Your task to perform on an android device: When is my next meeting? Image 0: 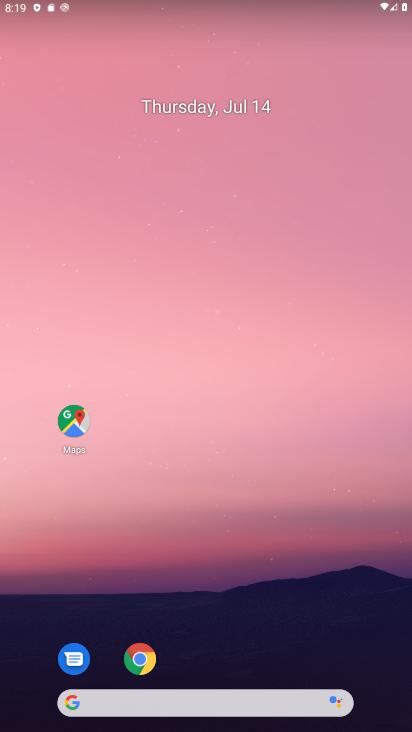
Step 0: drag from (216, 668) to (215, 137)
Your task to perform on an android device: When is my next meeting? Image 1: 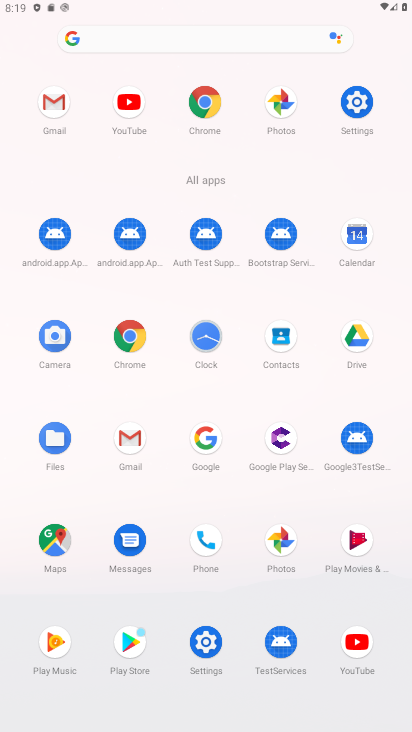
Step 1: click (357, 253)
Your task to perform on an android device: When is my next meeting? Image 2: 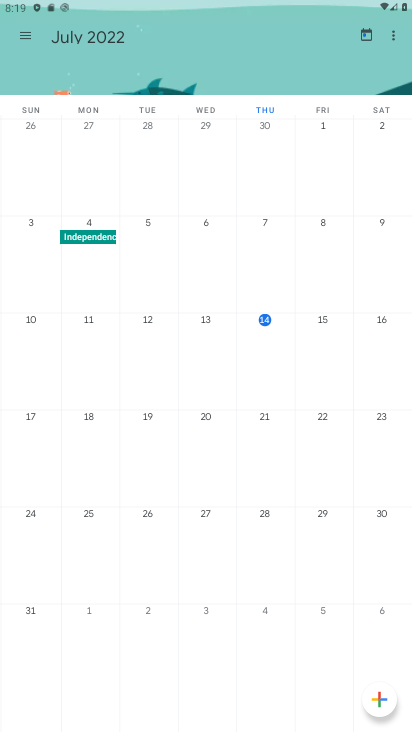
Step 2: drag from (321, 482) to (4, 436)
Your task to perform on an android device: When is my next meeting? Image 3: 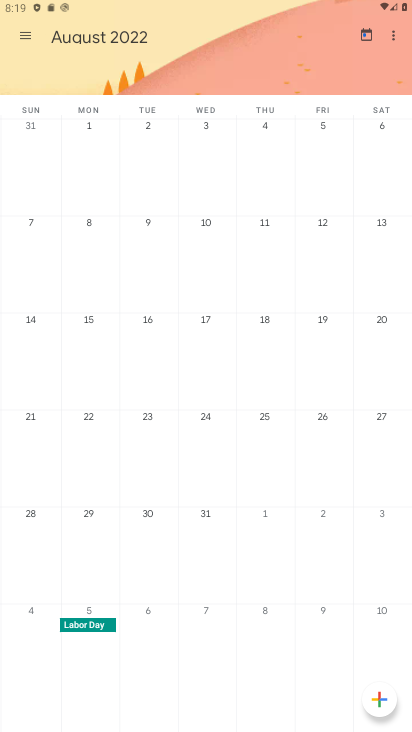
Step 3: drag from (30, 417) to (411, 306)
Your task to perform on an android device: When is my next meeting? Image 4: 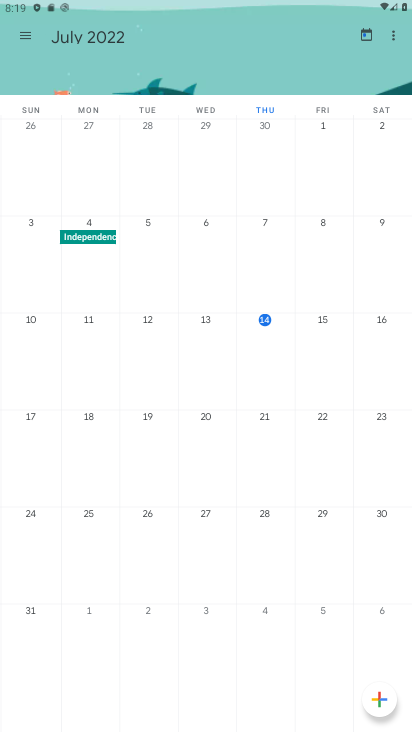
Step 4: click (16, 32)
Your task to perform on an android device: When is my next meeting? Image 5: 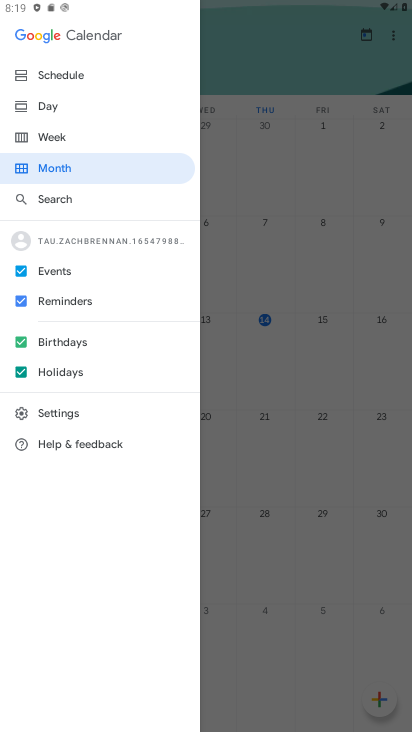
Step 5: click (49, 254)
Your task to perform on an android device: When is my next meeting? Image 6: 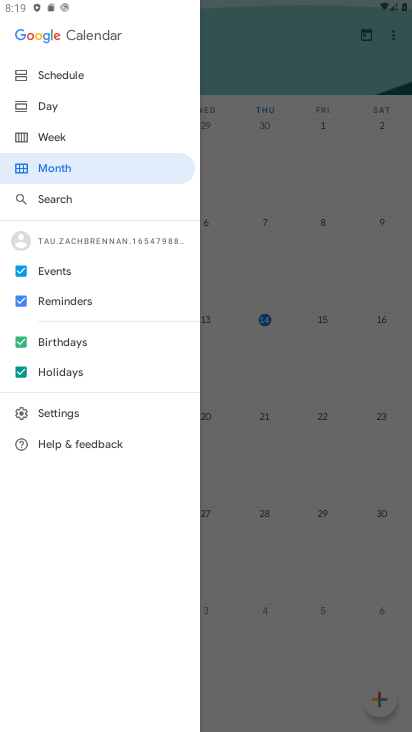
Step 6: click (42, 140)
Your task to perform on an android device: When is my next meeting? Image 7: 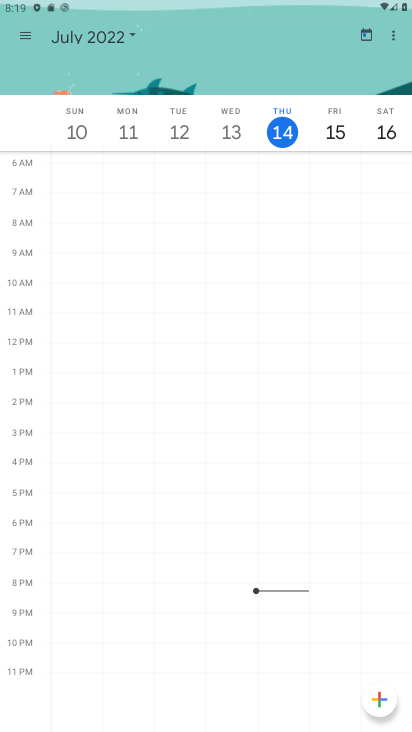
Step 7: click (188, 129)
Your task to perform on an android device: When is my next meeting? Image 8: 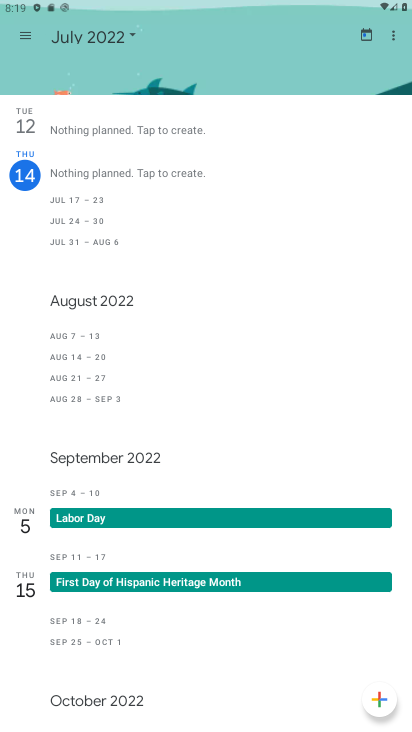
Step 8: click (17, 123)
Your task to perform on an android device: When is my next meeting? Image 9: 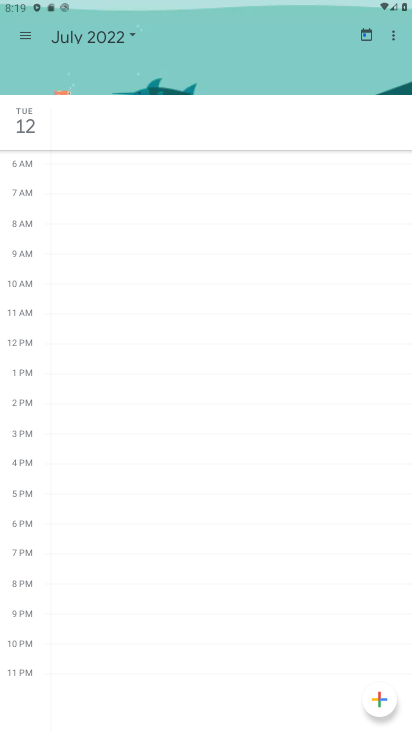
Step 9: click (17, 123)
Your task to perform on an android device: When is my next meeting? Image 10: 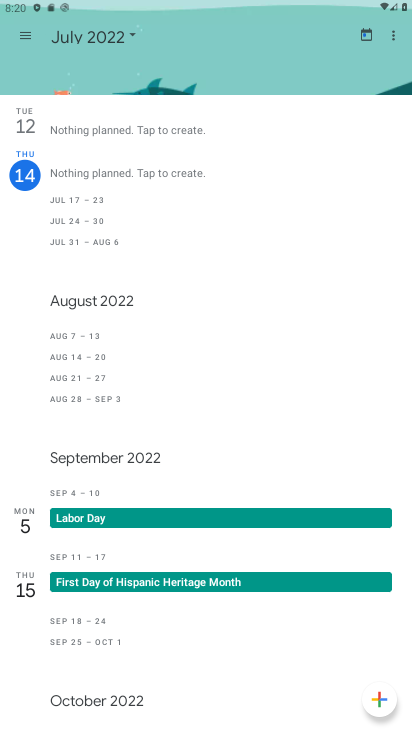
Step 10: click (102, 249)
Your task to perform on an android device: When is my next meeting? Image 11: 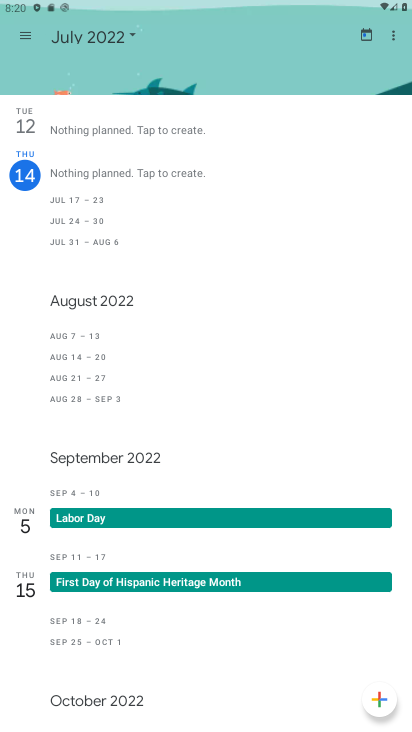
Step 11: task complete